Your task to perform on an android device: turn off sleep mode Image 0: 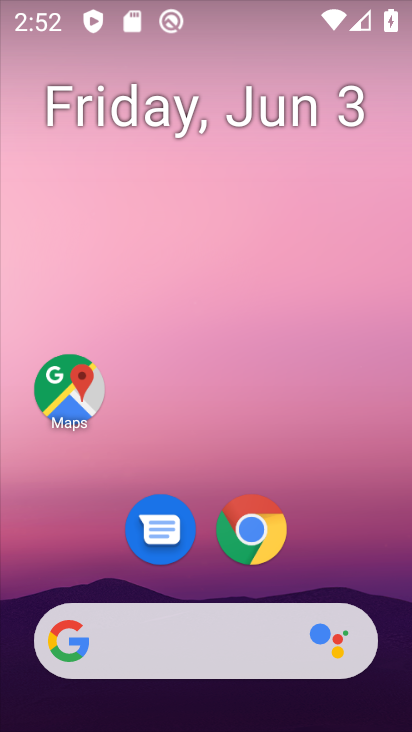
Step 0: drag from (397, 708) to (372, 66)
Your task to perform on an android device: turn off sleep mode Image 1: 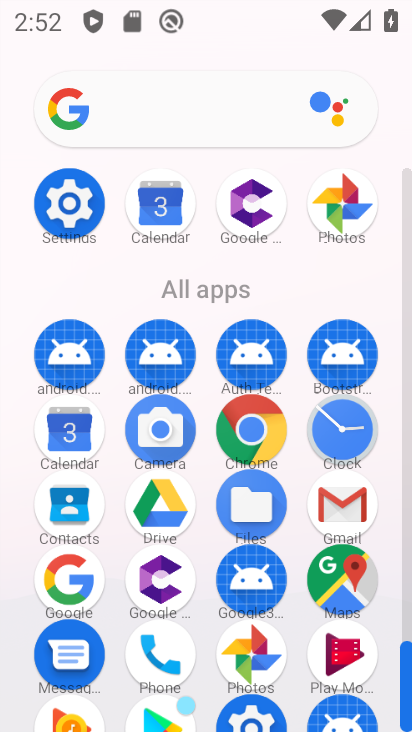
Step 1: click (63, 205)
Your task to perform on an android device: turn off sleep mode Image 2: 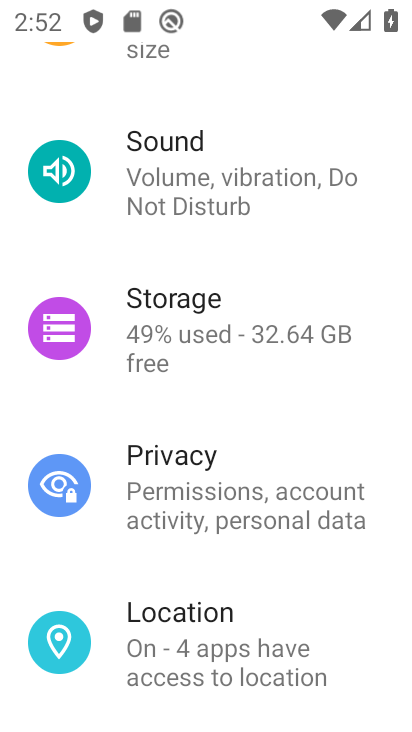
Step 2: drag from (286, 632) to (258, 255)
Your task to perform on an android device: turn off sleep mode Image 3: 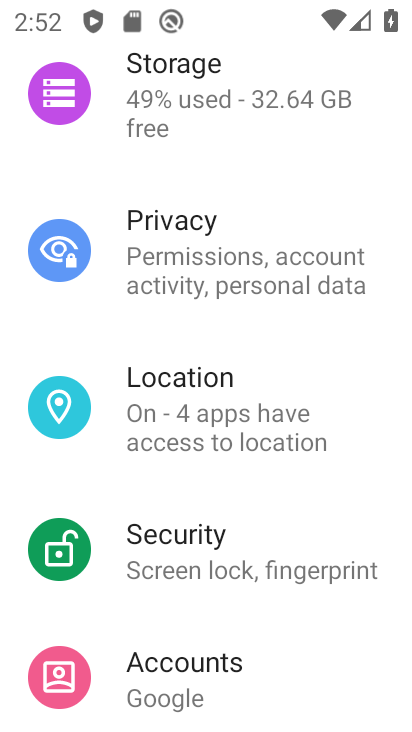
Step 3: drag from (249, 102) to (317, 626)
Your task to perform on an android device: turn off sleep mode Image 4: 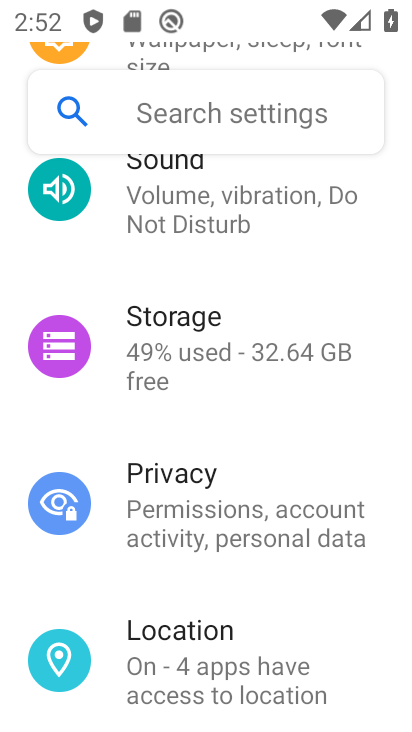
Step 4: drag from (263, 195) to (299, 526)
Your task to perform on an android device: turn off sleep mode Image 5: 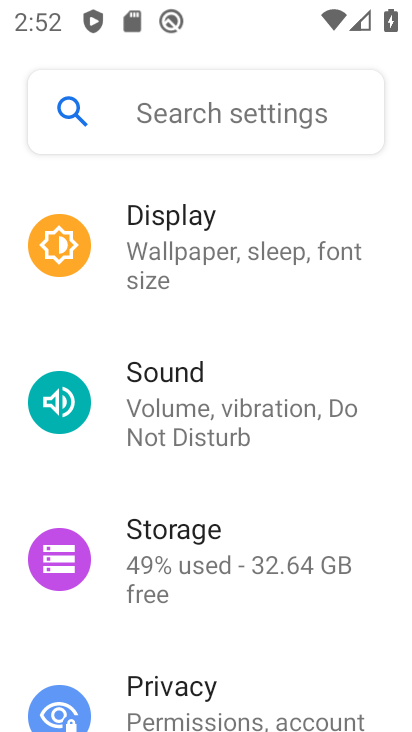
Step 5: click (156, 394)
Your task to perform on an android device: turn off sleep mode Image 6: 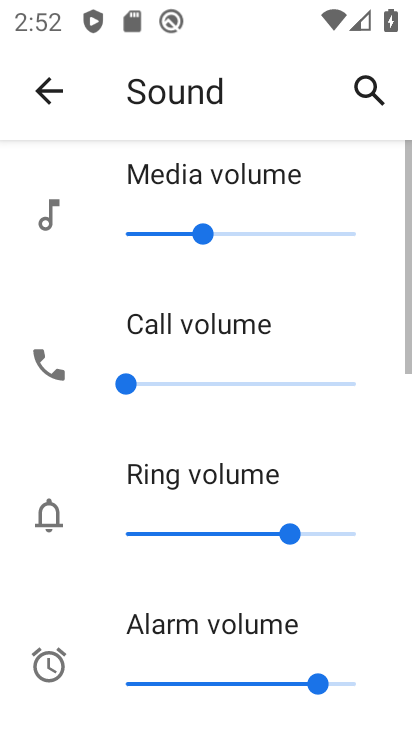
Step 6: click (46, 85)
Your task to perform on an android device: turn off sleep mode Image 7: 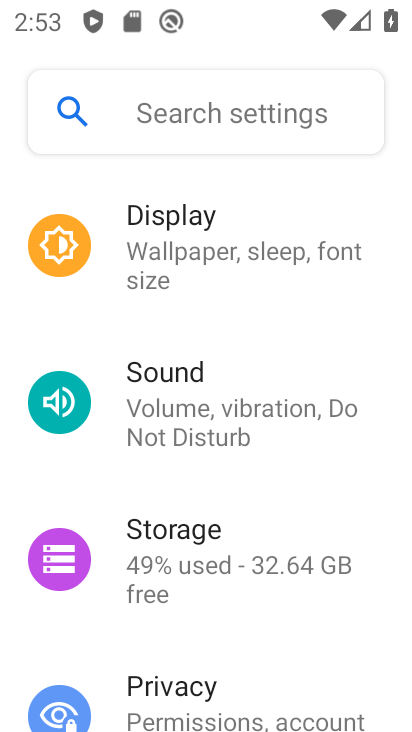
Step 7: click (190, 230)
Your task to perform on an android device: turn off sleep mode Image 8: 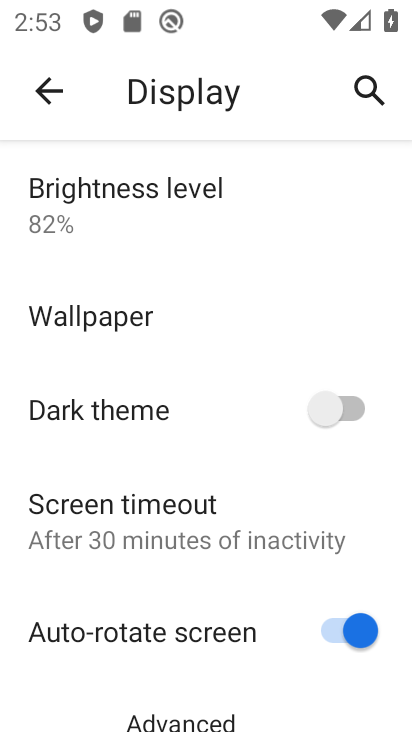
Step 8: click (144, 507)
Your task to perform on an android device: turn off sleep mode Image 9: 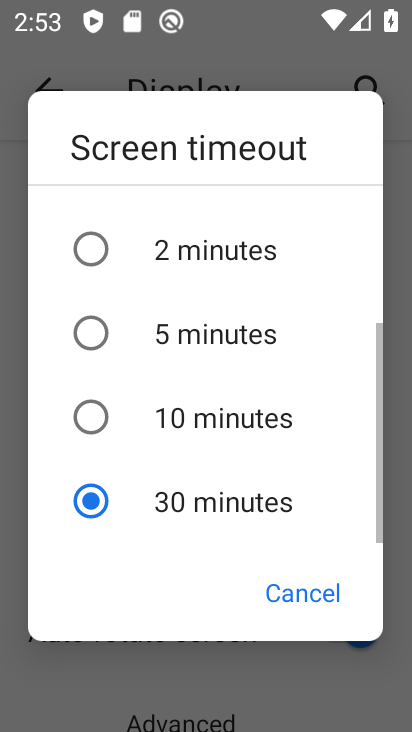
Step 9: task complete